Your task to perform on an android device: change the clock style Image 0: 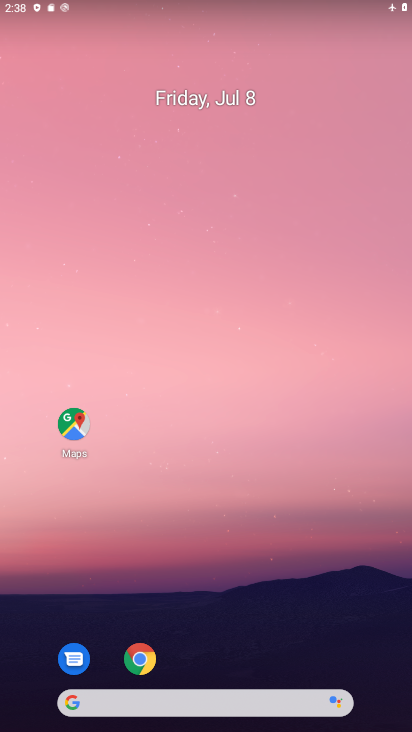
Step 0: drag from (269, 614) to (293, 201)
Your task to perform on an android device: change the clock style Image 1: 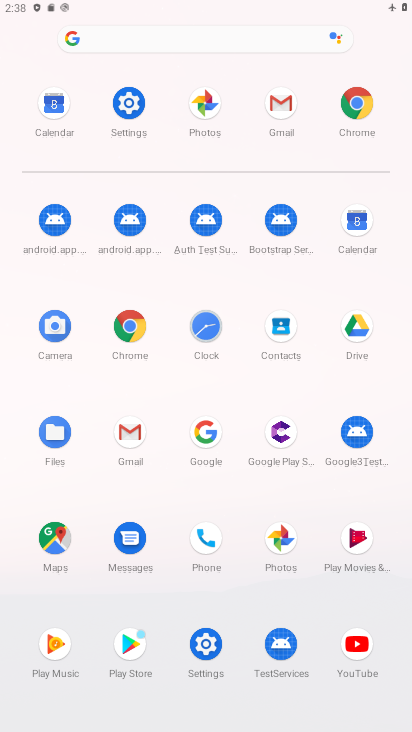
Step 1: click (213, 340)
Your task to perform on an android device: change the clock style Image 2: 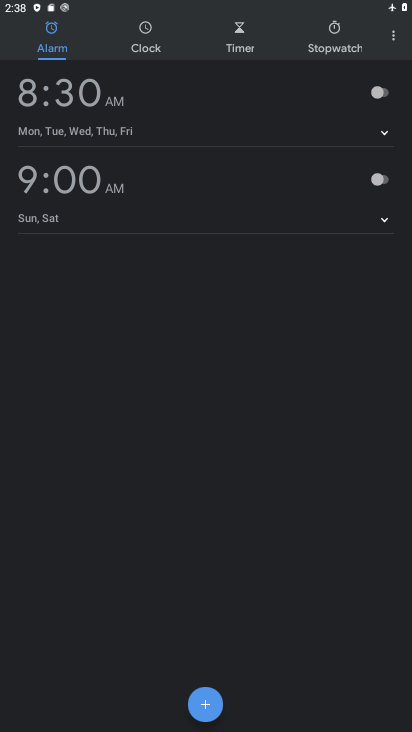
Step 2: click (394, 40)
Your task to perform on an android device: change the clock style Image 3: 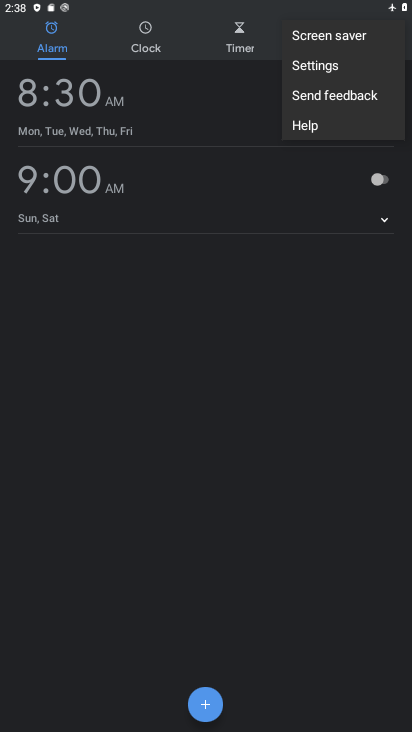
Step 3: click (355, 74)
Your task to perform on an android device: change the clock style Image 4: 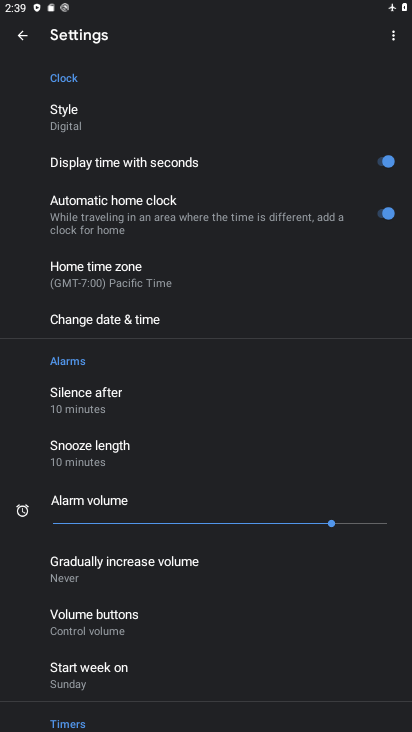
Step 4: click (279, 126)
Your task to perform on an android device: change the clock style Image 5: 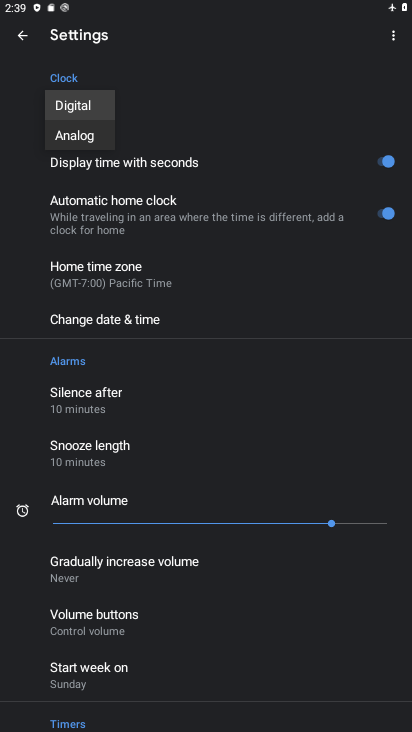
Step 5: click (97, 135)
Your task to perform on an android device: change the clock style Image 6: 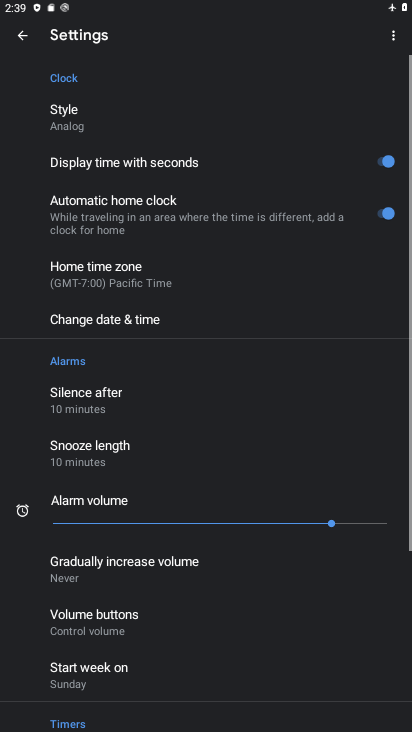
Step 6: task complete